Your task to perform on an android device: Open display settings Image 0: 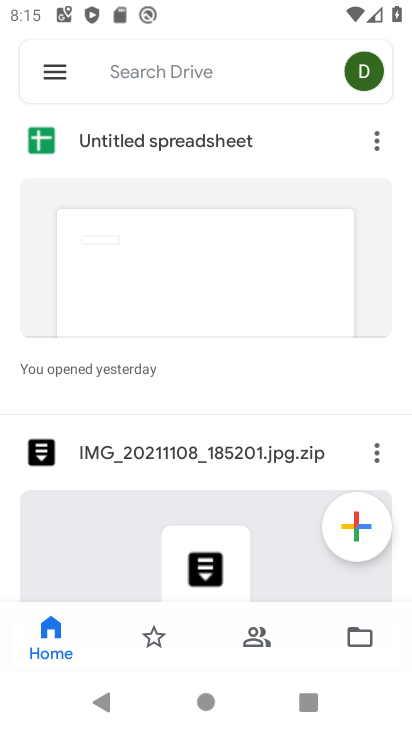
Step 0: press back button
Your task to perform on an android device: Open display settings Image 1: 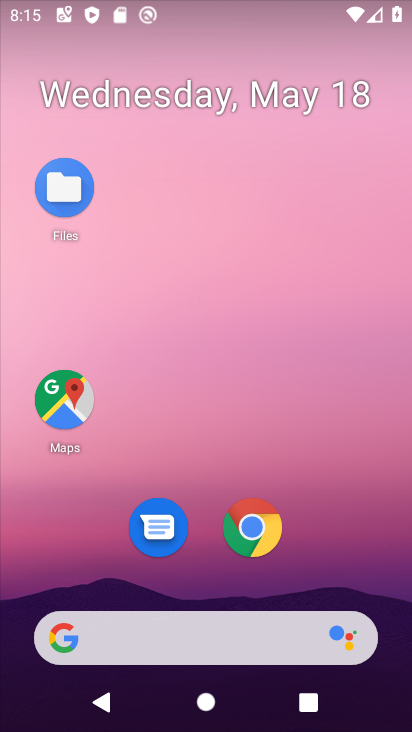
Step 1: drag from (264, 431) to (197, 234)
Your task to perform on an android device: Open display settings Image 2: 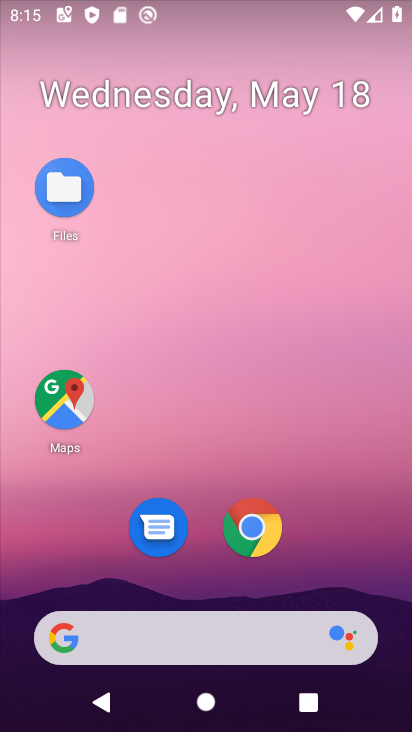
Step 2: drag from (335, 604) to (213, 140)
Your task to perform on an android device: Open display settings Image 3: 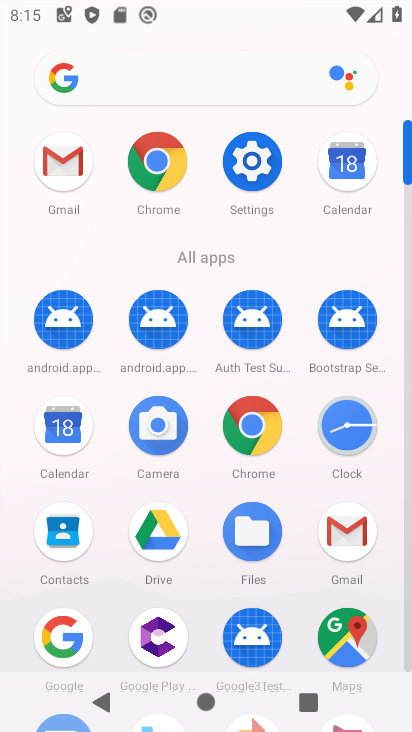
Step 3: click (246, 154)
Your task to perform on an android device: Open display settings Image 4: 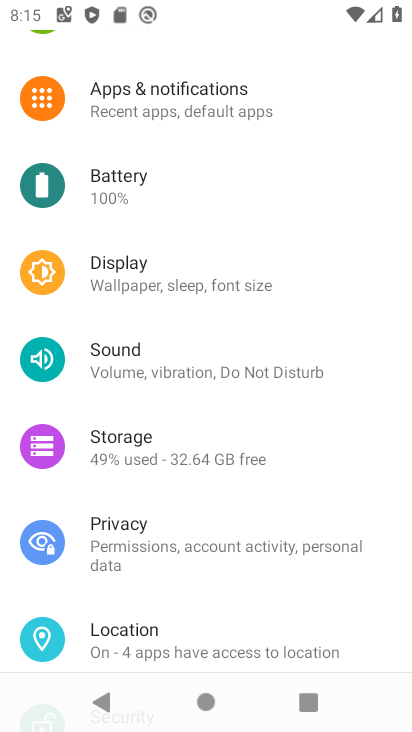
Step 4: click (86, 268)
Your task to perform on an android device: Open display settings Image 5: 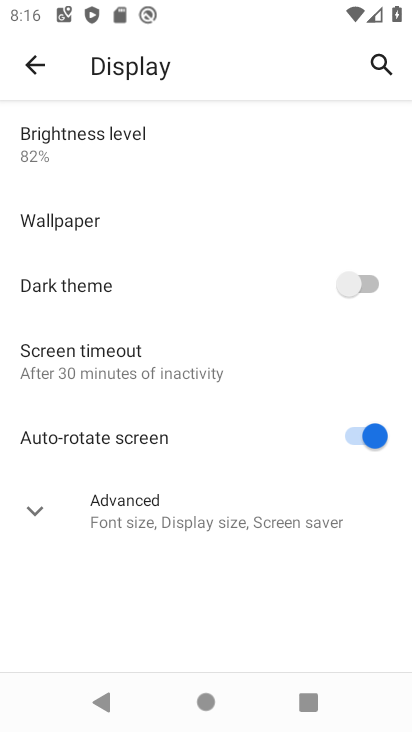
Step 5: task complete